Your task to perform on an android device: Go to Android settings Image 0: 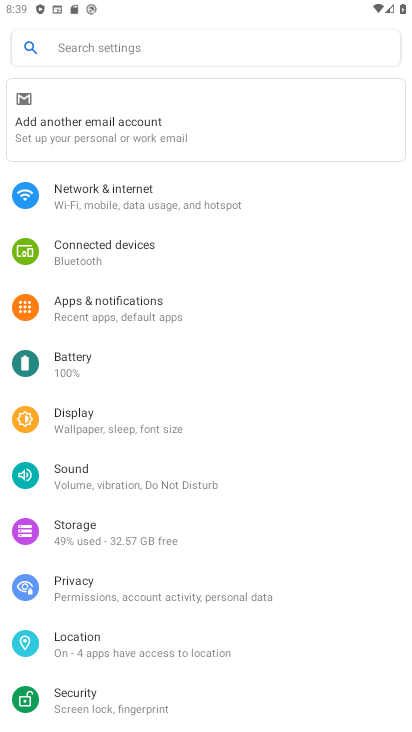
Step 0: drag from (227, 603) to (122, 50)
Your task to perform on an android device: Go to Android settings Image 1: 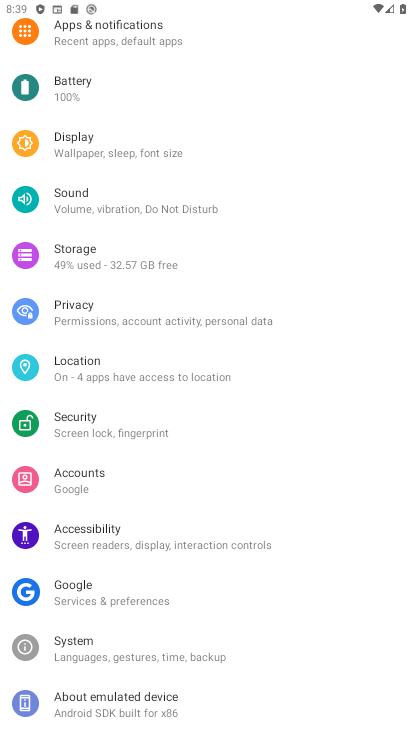
Step 1: click (91, 696)
Your task to perform on an android device: Go to Android settings Image 2: 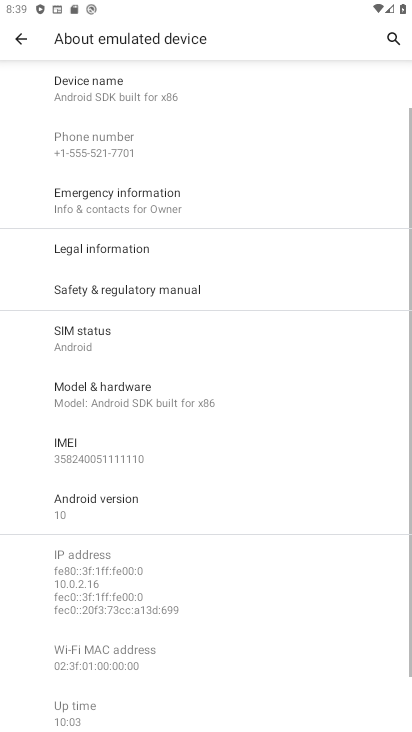
Step 2: click (96, 503)
Your task to perform on an android device: Go to Android settings Image 3: 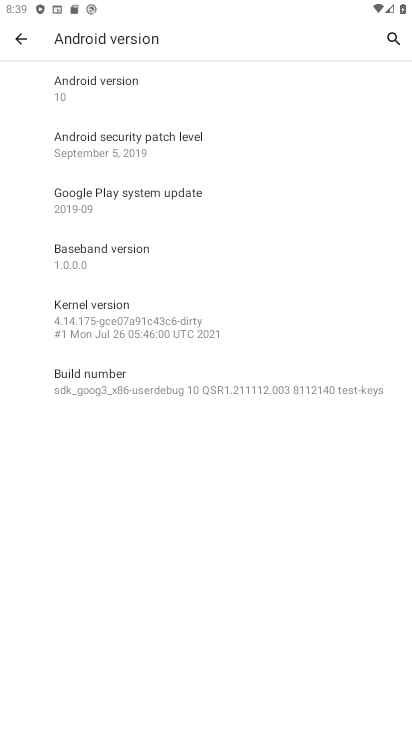
Step 3: click (239, 91)
Your task to perform on an android device: Go to Android settings Image 4: 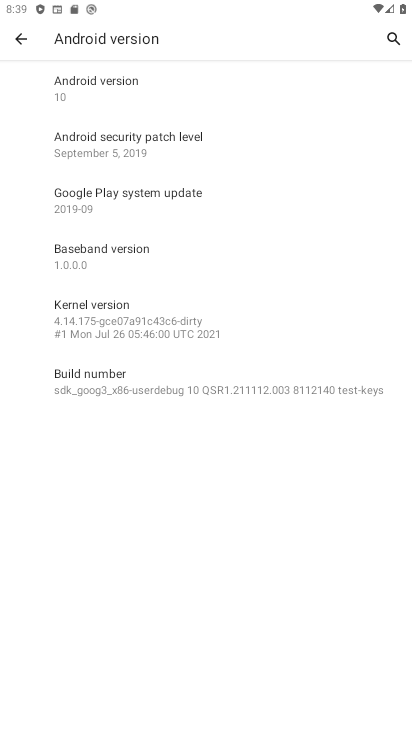
Step 4: task complete